Your task to perform on an android device: Go to display settings Image 0: 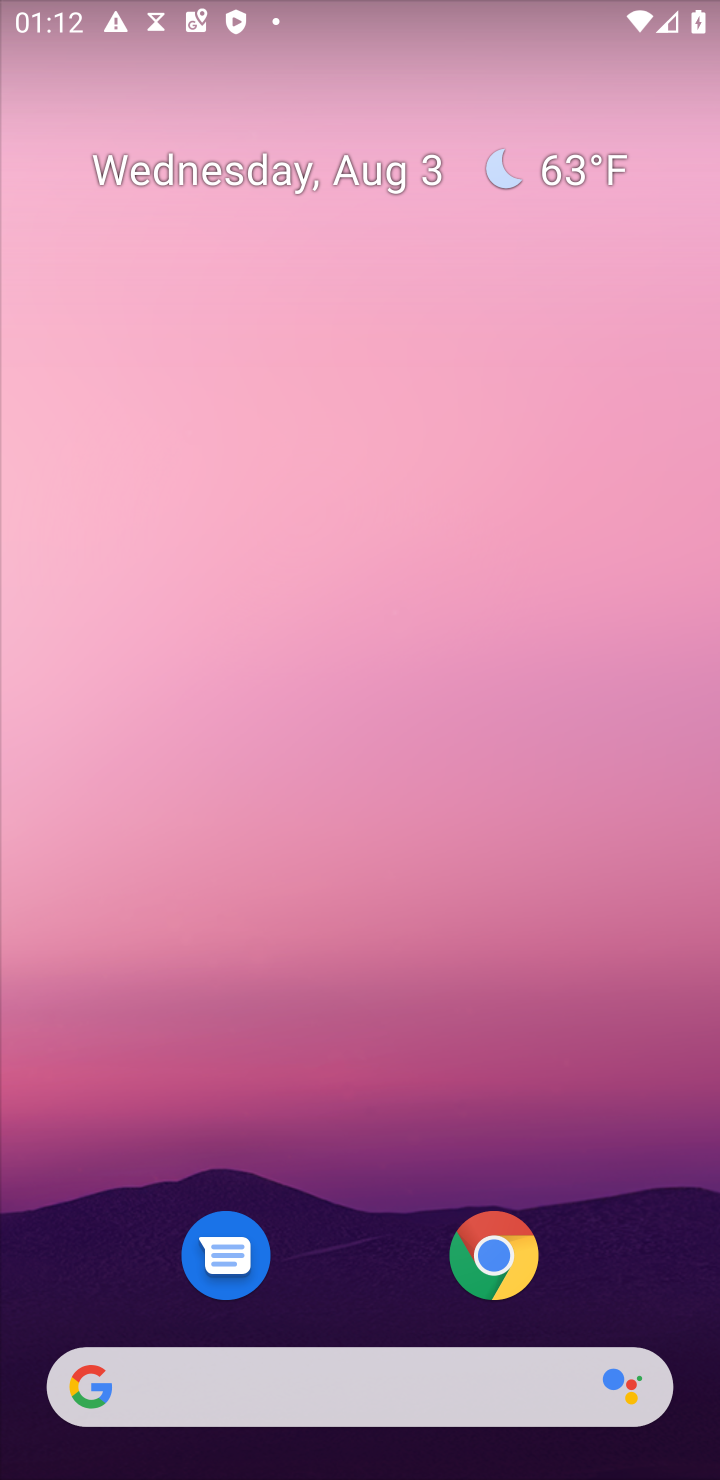
Step 0: drag from (651, 1260) to (477, 8)
Your task to perform on an android device: Go to display settings Image 1: 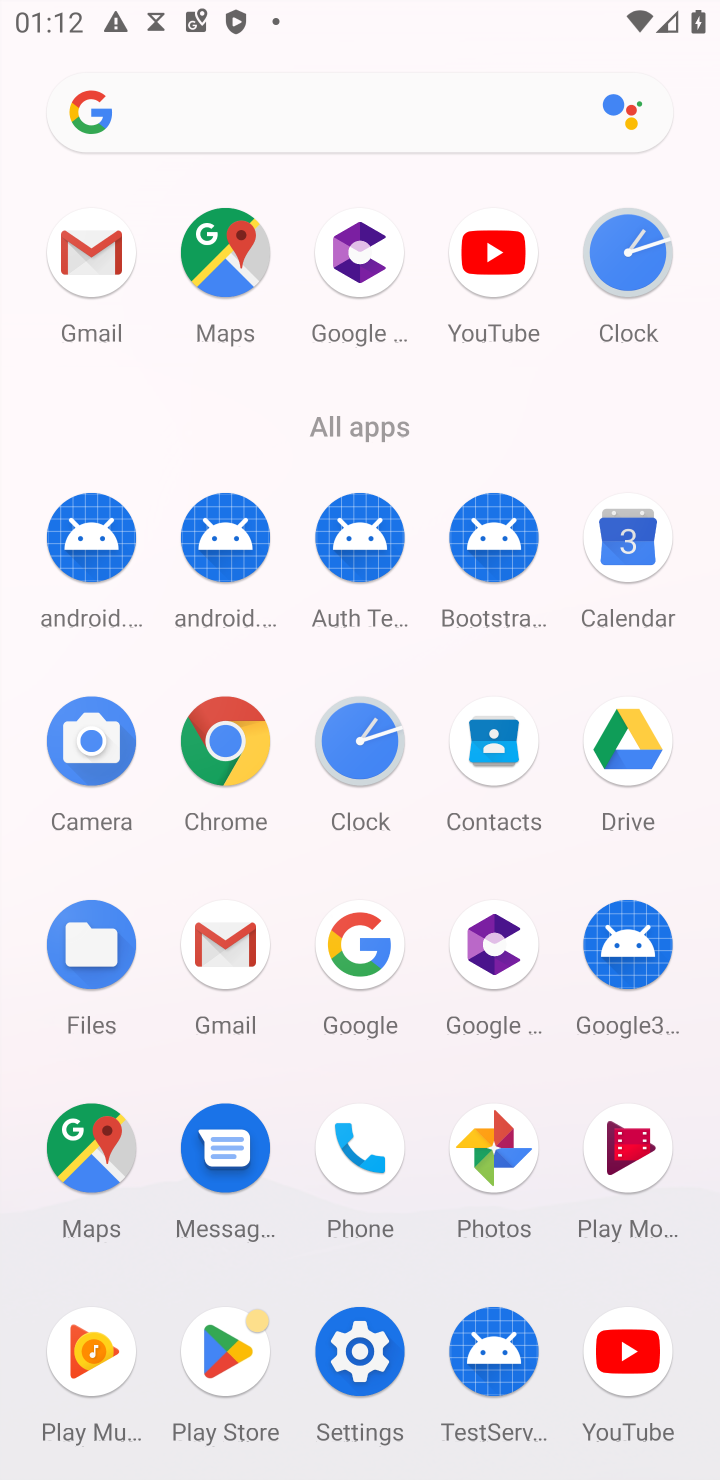
Step 1: click (362, 1359)
Your task to perform on an android device: Go to display settings Image 2: 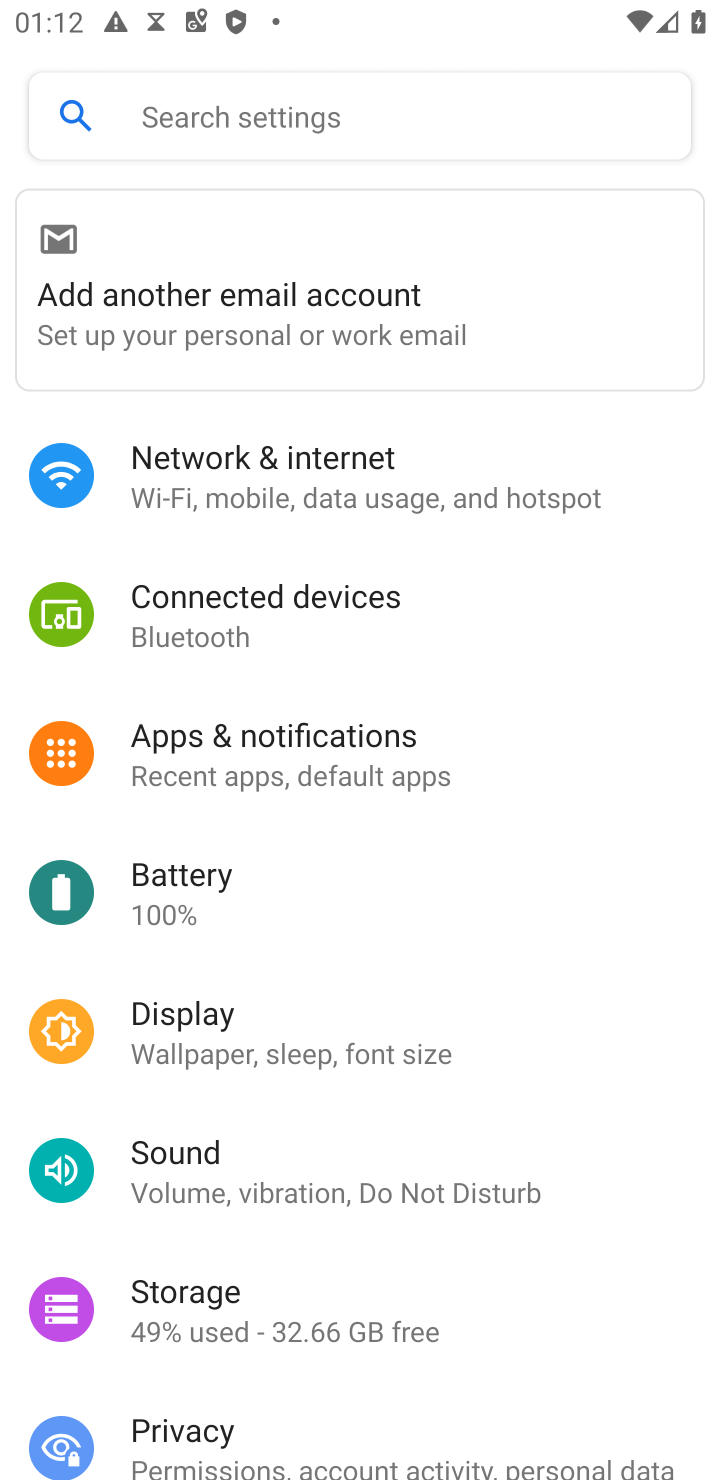
Step 2: click (407, 1072)
Your task to perform on an android device: Go to display settings Image 3: 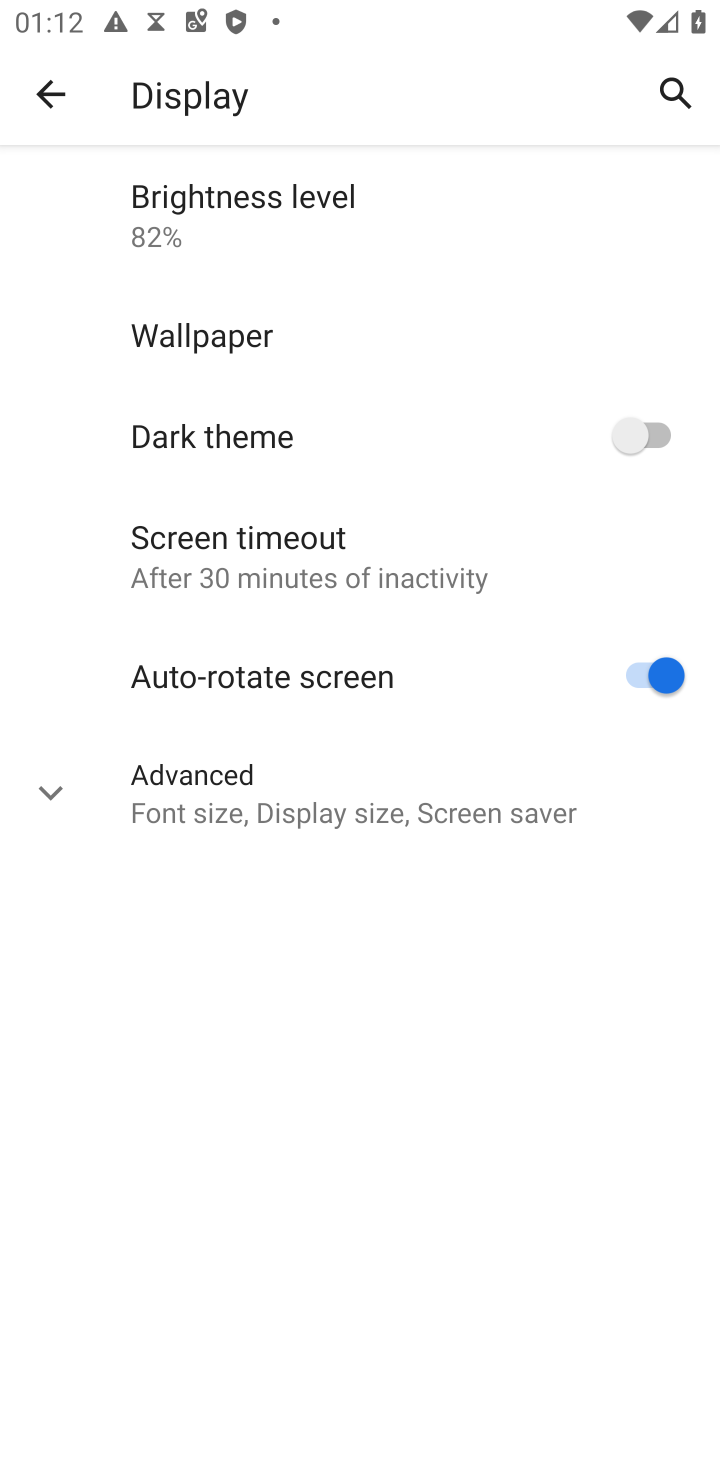
Step 3: task complete